Your task to perform on an android device: Show me popular games on the Play Store Image 0: 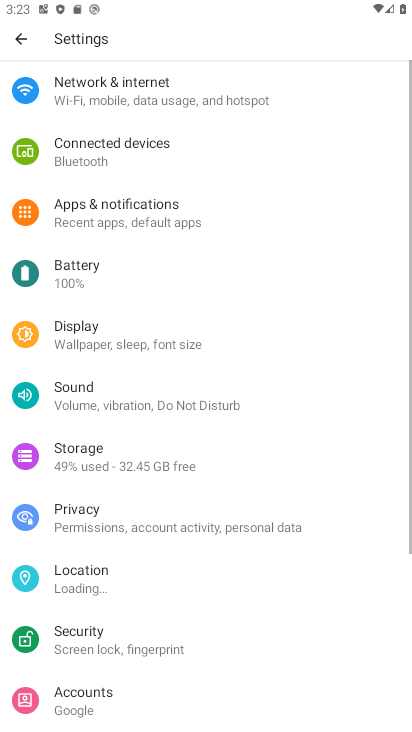
Step 0: drag from (353, 643) to (339, 523)
Your task to perform on an android device: Show me popular games on the Play Store Image 1: 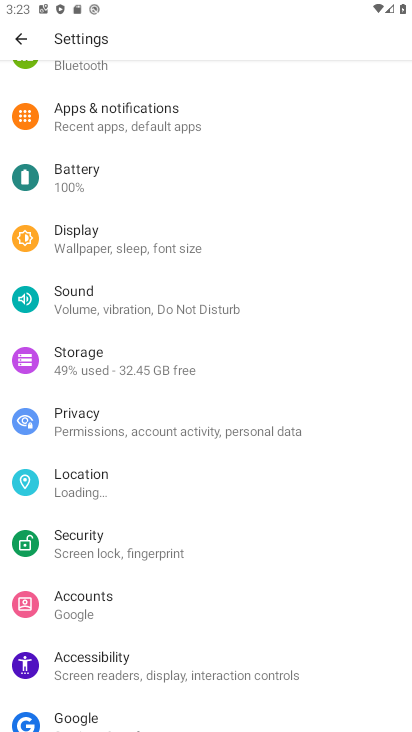
Step 1: press home button
Your task to perform on an android device: Show me popular games on the Play Store Image 2: 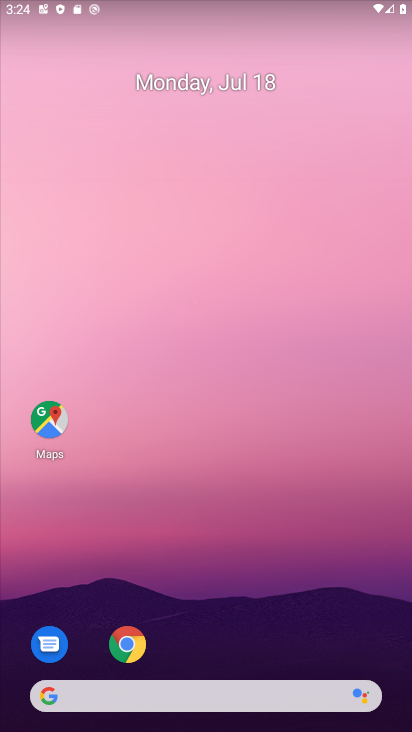
Step 2: drag from (327, 615) to (317, 251)
Your task to perform on an android device: Show me popular games on the Play Store Image 3: 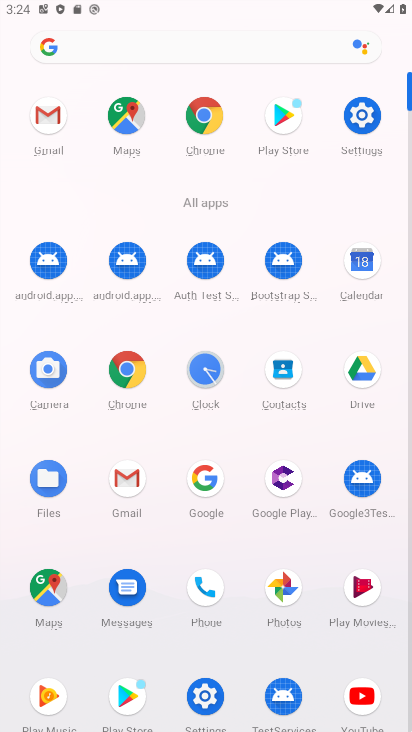
Step 3: click (127, 688)
Your task to perform on an android device: Show me popular games on the Play Store Image 4: 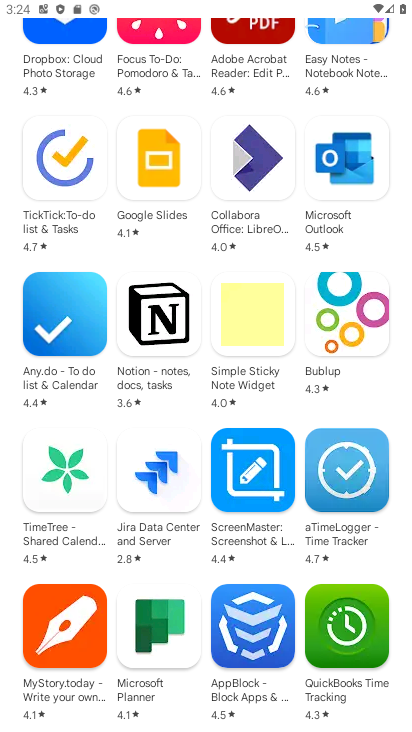
Step 4: press back button
Your task to perform on an android device: Show me popular games on the Play Store Image 5: 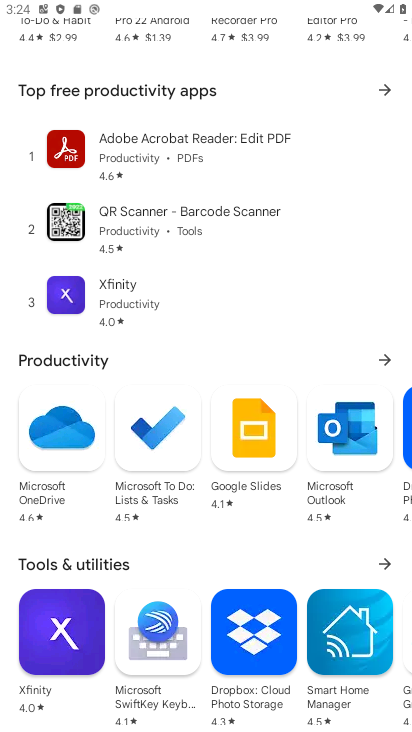
Step 5: press back button
Your task to perform on an android device: Show me popular games on the Play Store Image 6: 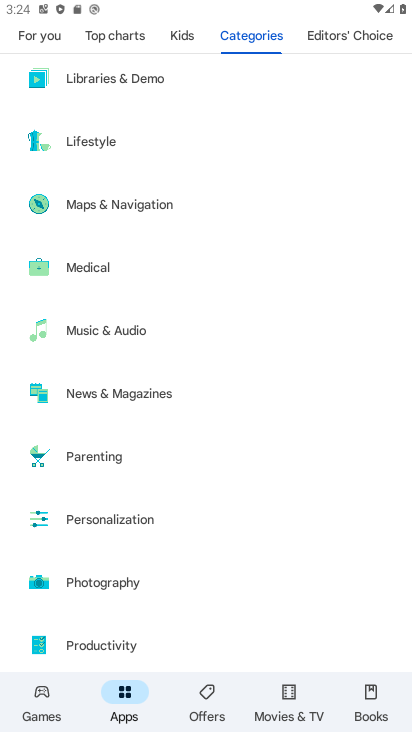
Step 6: click (50, 703)
Your task to perform on an android device: Show me popular games on the Play Store Image 7: 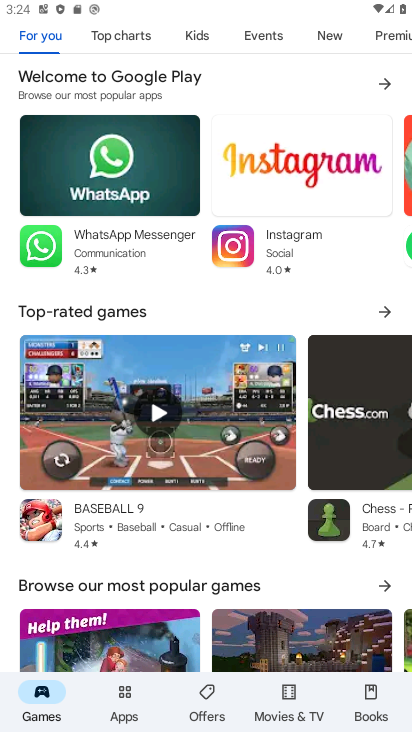
Step 7: click (387, 580)
Your task to perform on an android device: Show me popular games on the Play Store Image 8: 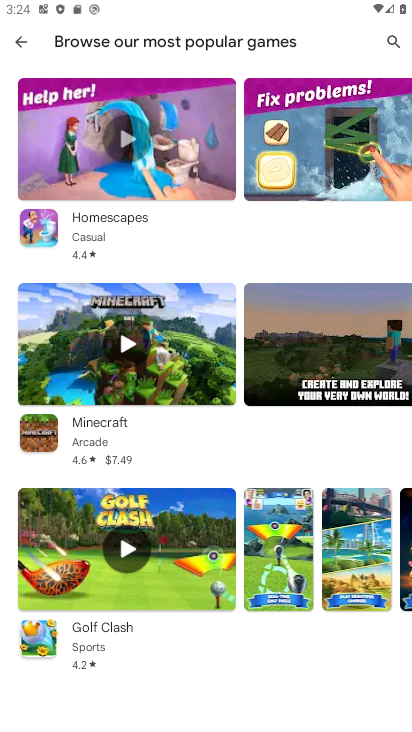
Step 8: task complete